Your task to perform on an android device: turn on bluetooth scan Image 0: 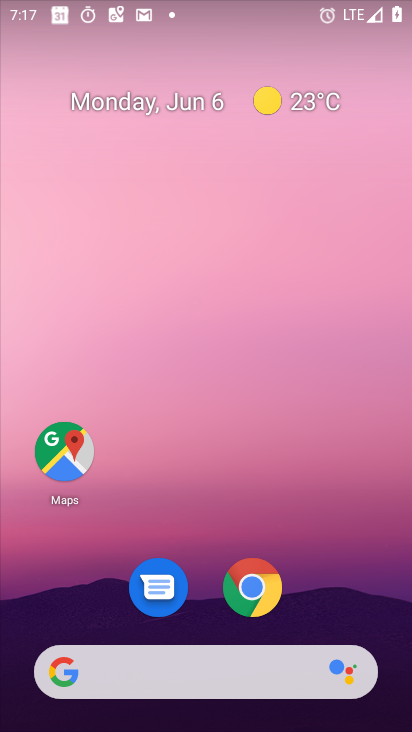
Step 0: drag from (390, 638) to (302, 53)
Your task to perform on an android device: turn on bluetooth scan Image 1: 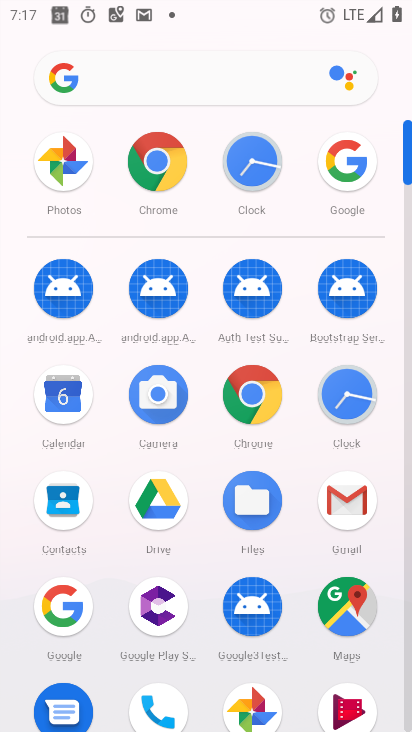
Step 1: drag from (127, 637) to (104, 171)
Your task to perform on an android device: turn on bluetooth scan Image 2: 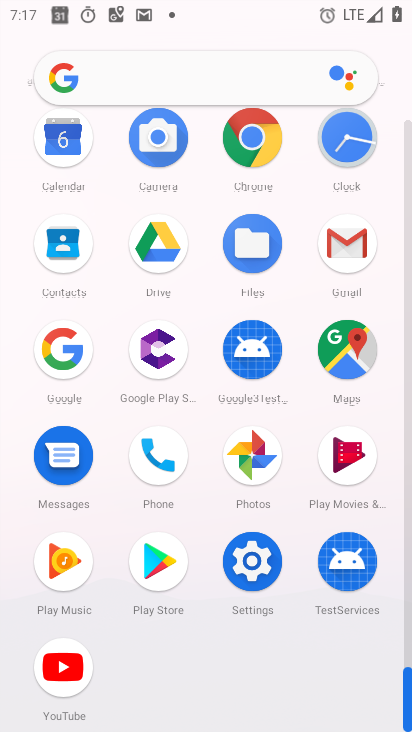
Step 2: click (258, 587)
Your task to perform on an android device: turn on bluetooth scan Image 3: 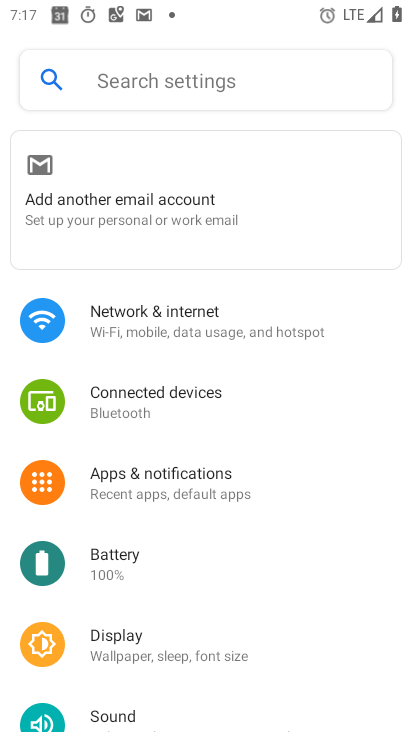
Step 3: drag from (97, 667) to (165, 296)
Your task to perform on an android device: turn on bluetooth scan Image 4: 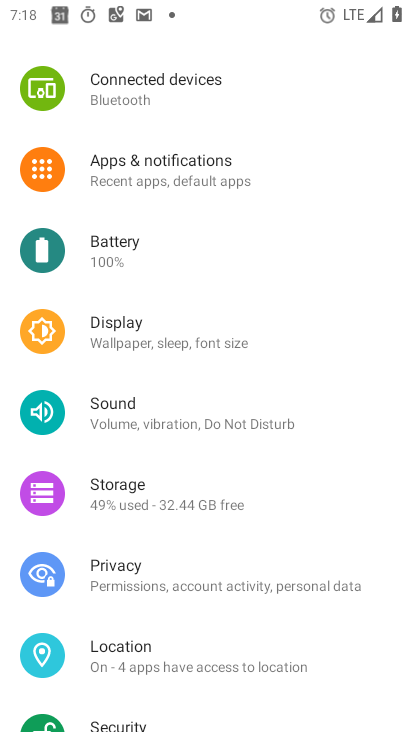
Step 4: click (127, 650)
Your task to perform on an android device: turn on bluetooth scan Image 5: 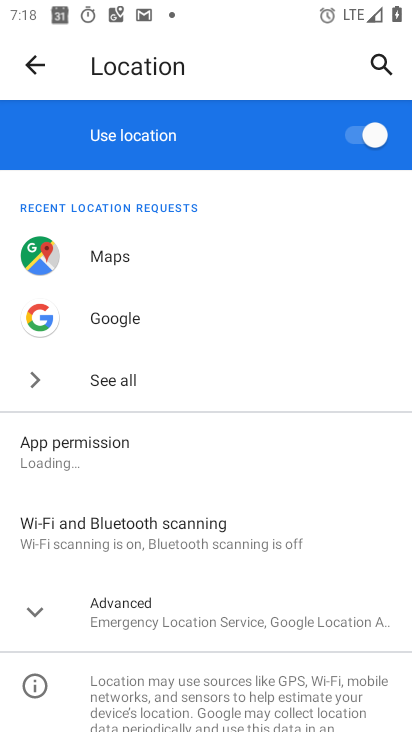
Step 5: click (192, 498)
Your task to perform on an android device: turn on bluetooth scan Image 6: 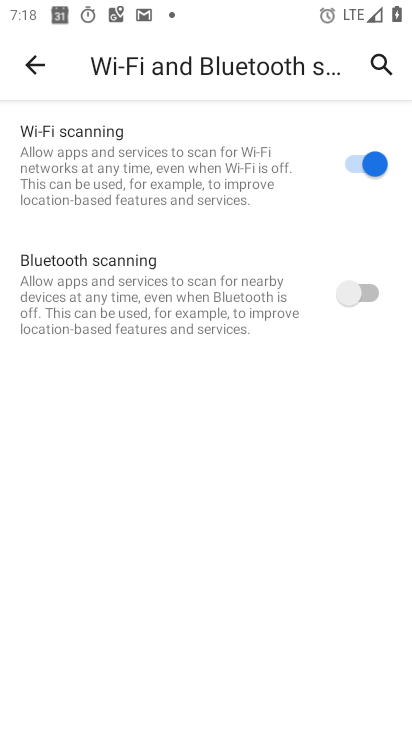
Step 6: click (365, 311)
Your task to perform on an android device: turn on bluetooth scan Image 7: 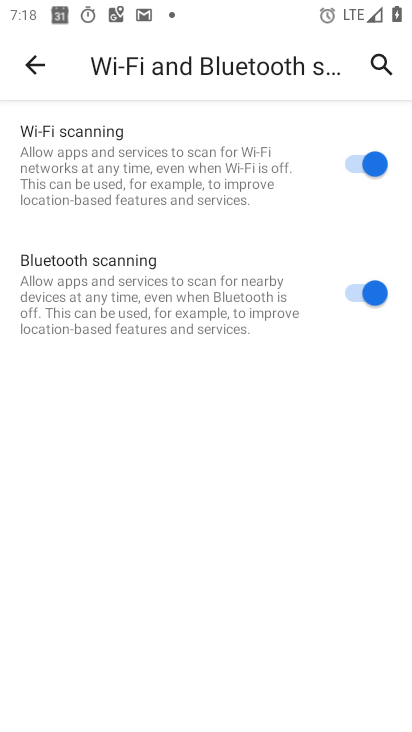
Step 7: task complete